Your task to perform on an android device: Open settings Image 0: 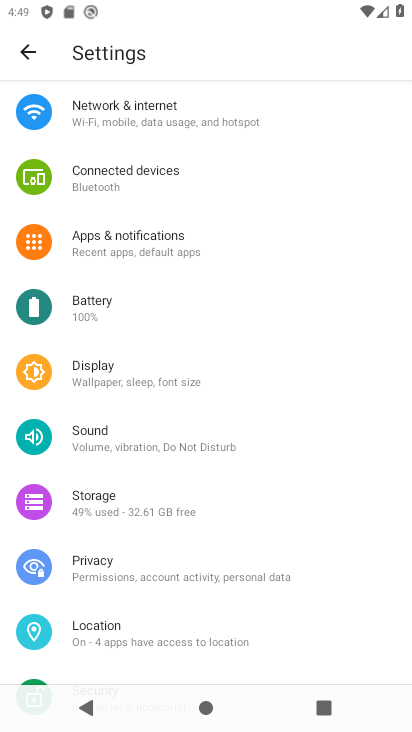
Step 0: drag from (247, 567) to (258, 660)
Your task to perform on an android device: Open settings Image 1: 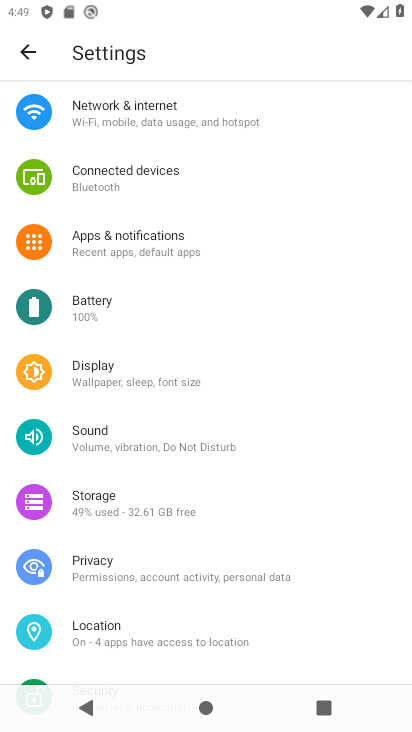
Step 1: task complete